Your task to perform on an android device: open a bookmark in the chrome app Image 0: 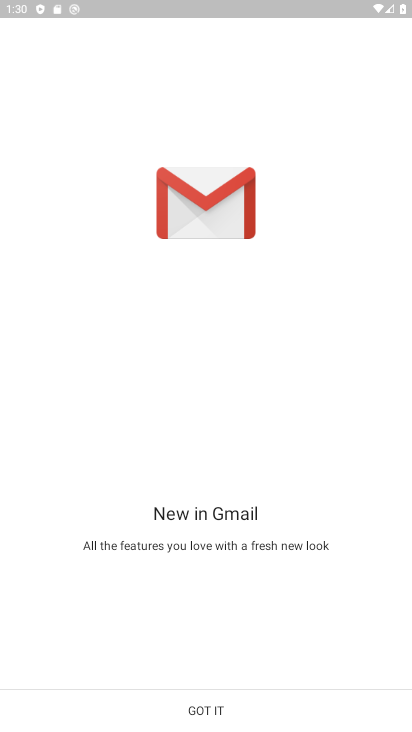
Step 0: click (248, 713)
Your task to perform on an android device: open a bookmark in the chrome app Image 1: 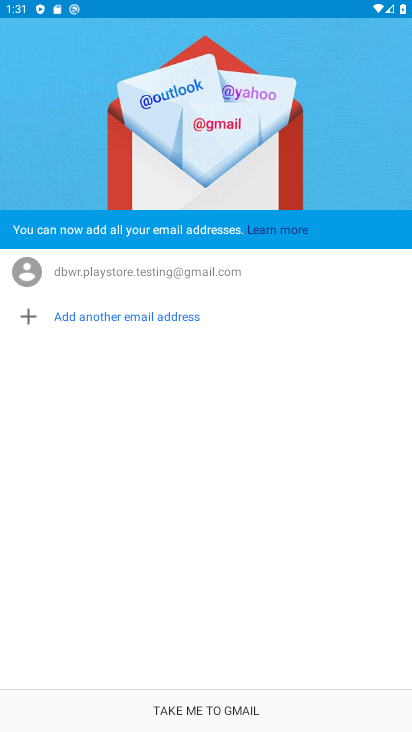
Step 1: press back button
Your task to perform on an android device: open a bookmark in the chrome app Image 2: 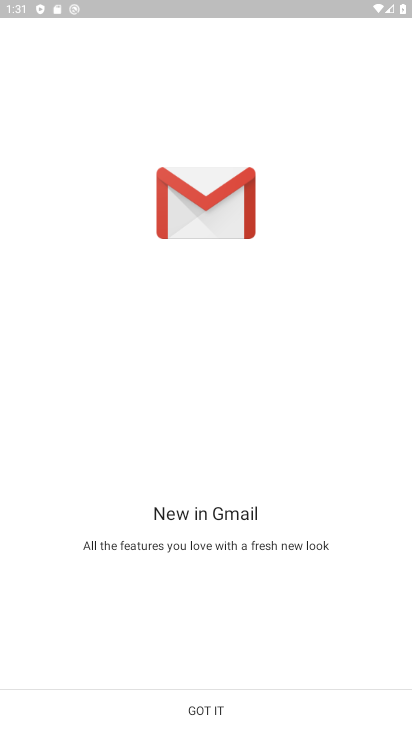
Step 2: press back button
Your task to perform on an android device: open a bookmark in the chrome app Image 3: 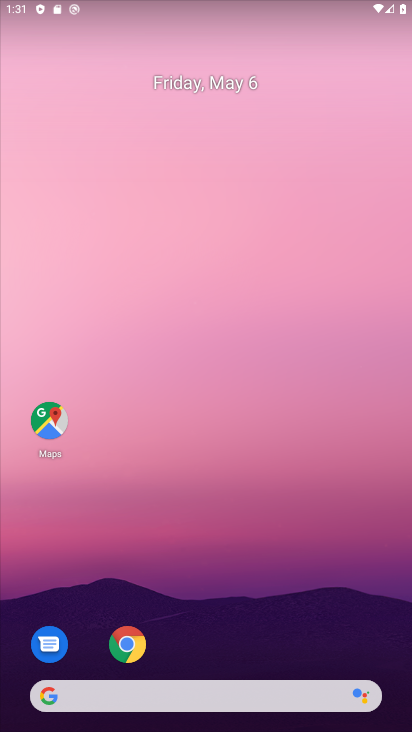
Step 3: click (127, 646)
Your task to perform on an android device: open a bookmark in the chrome app Image 4: 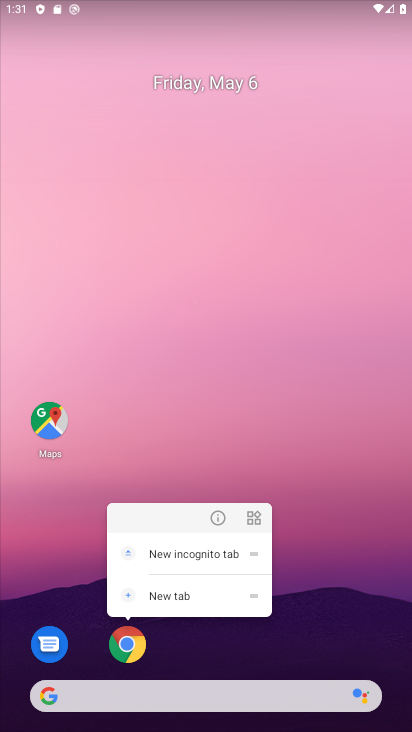
Step 4: click (134, 646)
Your task to perform on an android device: open a bookmark in the chrome app Image 5: 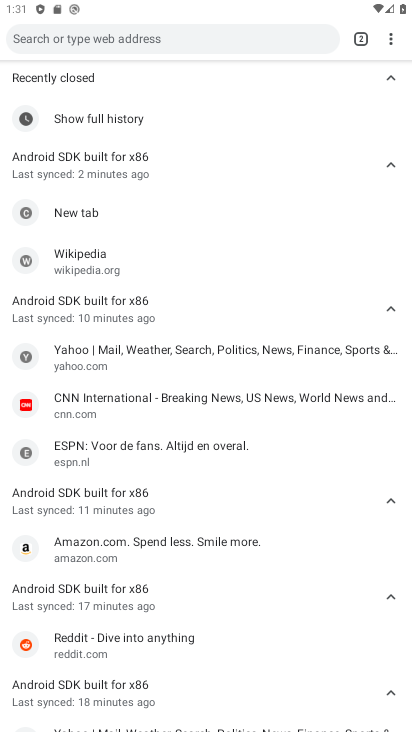
Step 5: drag from (387, 35) to (279, 144)
Your task to perform on an android device: open a bookmark in the chrome app Image 6: 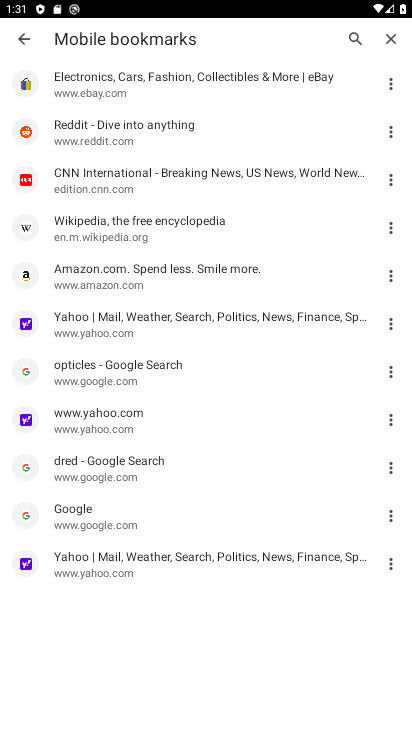
Step 6: click (124, 264)
Your task to perform on an android device: open a bookmark in the chrome app Image 7: 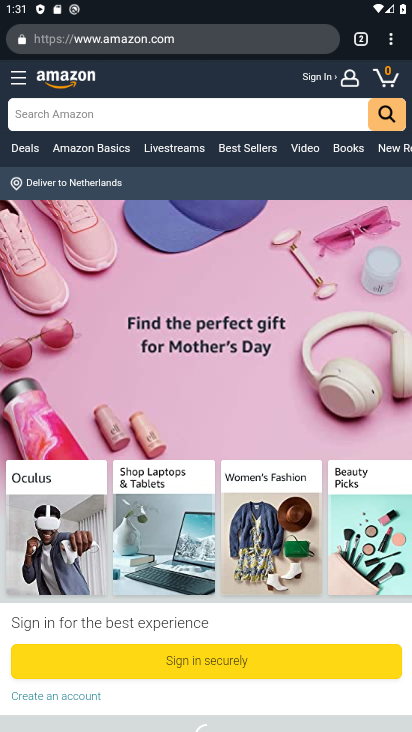
Step 7: task complete